Your task to perform on an android device: Go to calendar. Show me events next week Image 0: 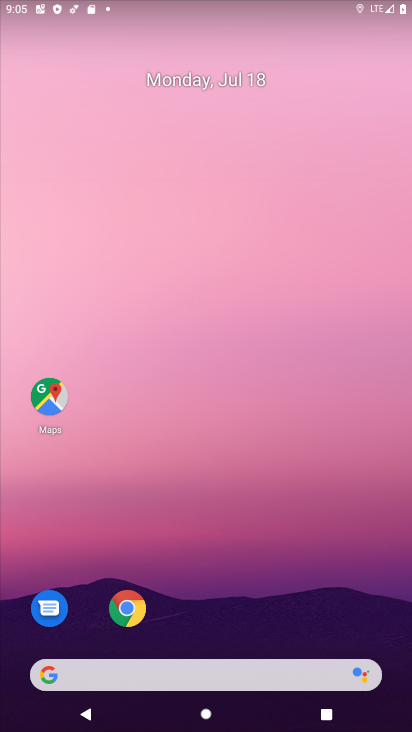
Step 0: drag from (26, 695) to (257, 42)
Your task to perform on an android device: Go to calendar. Show me events next week Image 1: 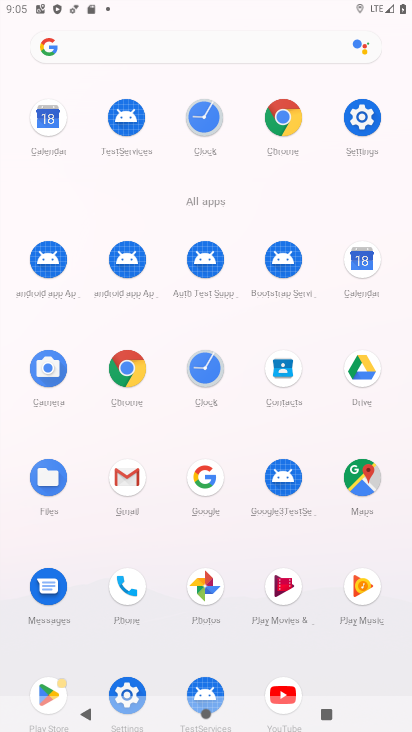
Step 1: click (352, 272)
Your task to perform on an android device: Go to calendar. Show me events next week Image 2: 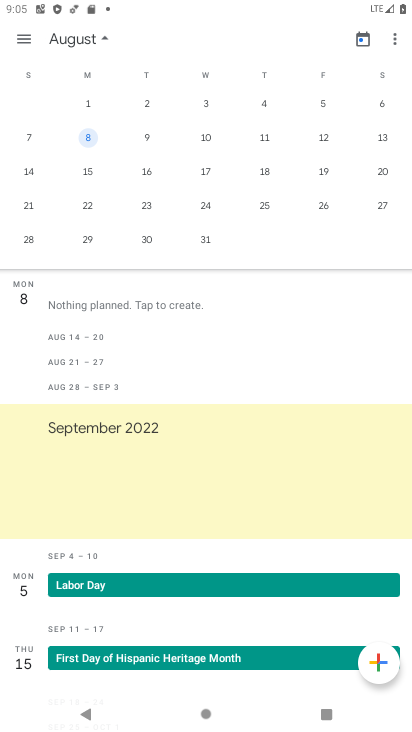
Step 2: task complete